Your task to perform on an android device: find photos in the google photos app Image 0: 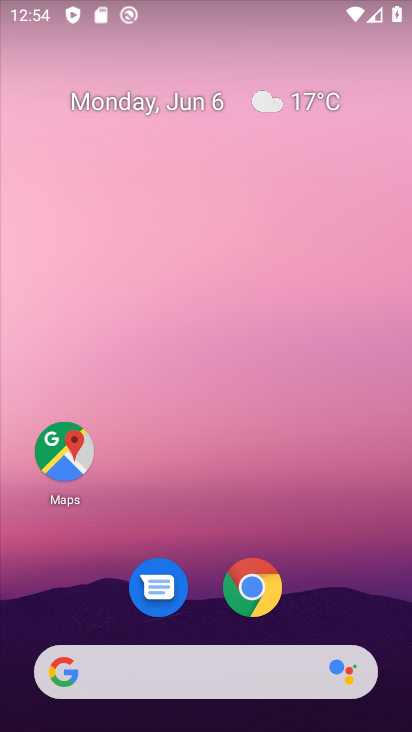
Step 0: drag from (198, 593) to (253, 225)
Your task to perform on an android device: find photos in the google photos app Image 1: 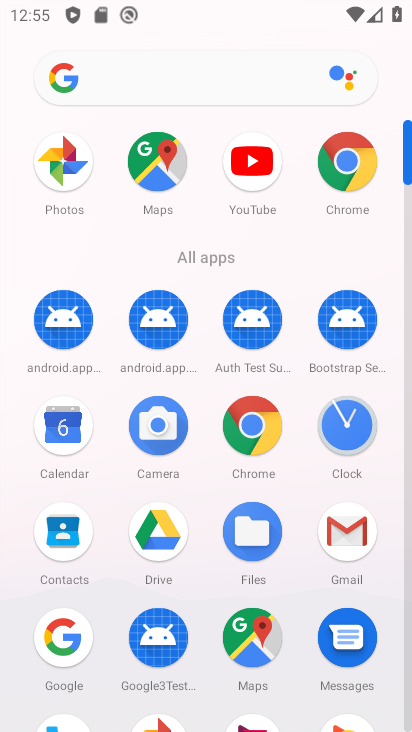
Step 1: drag from (274, 643) to (266, 295)
Your task to perform on an android device: find photos in the google photos app Image 2: 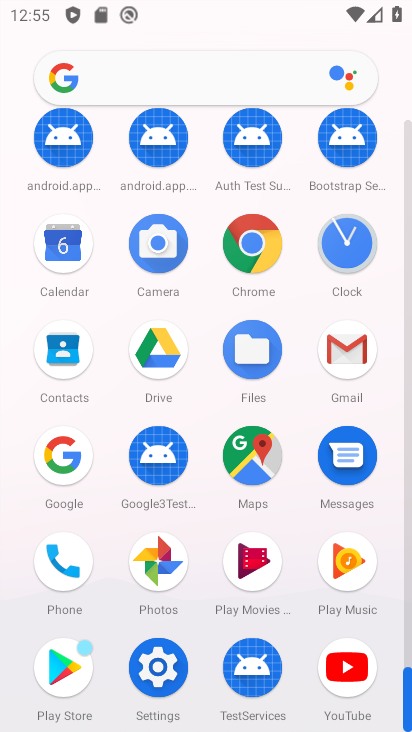
Step 2: click (158, 561)
Your task to perform on an android device: find photos in the google photos app Image 3: 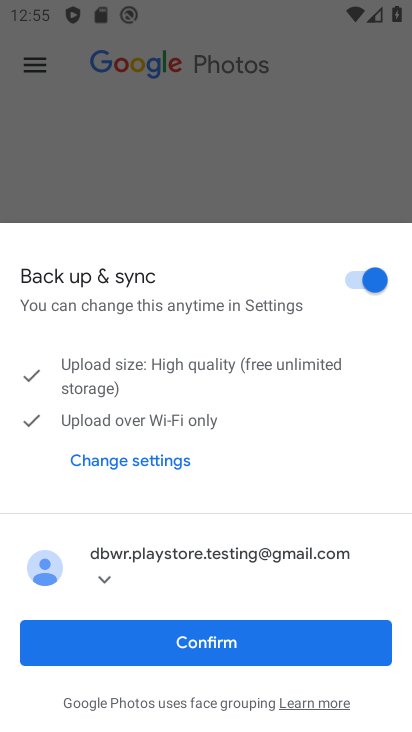
Step 3: click (188, 643)
Your task to perform on an android device: find photos in the google photos app Image 4: 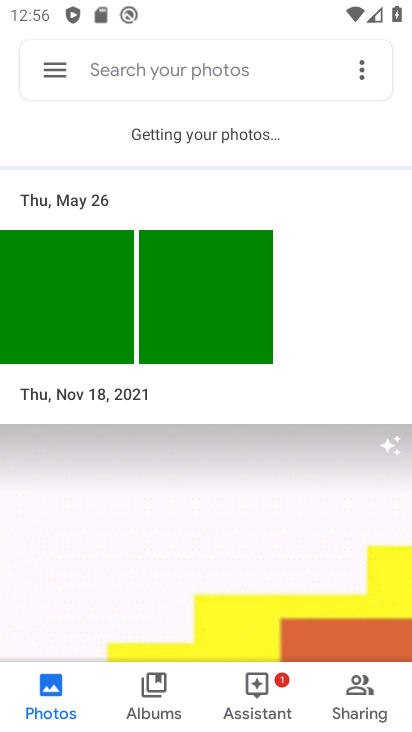
Step 4: task complete